Your task to perform on an android device: install app "WhatsApp Messenger" Image 0: 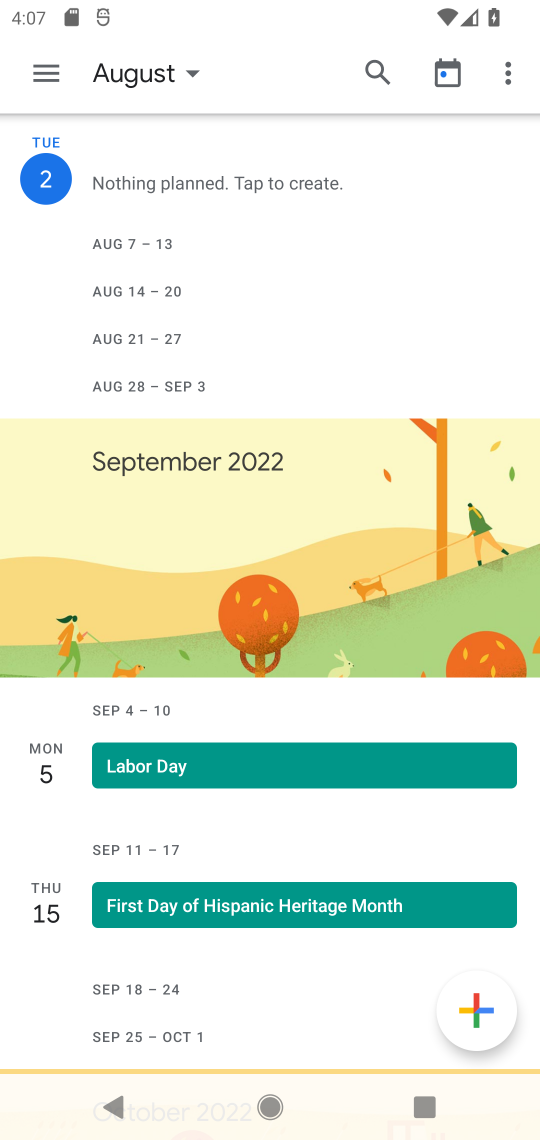
Step 0: press home button
Your task to perform on an android device: install app "WhatsApp Messenger" Image 1: 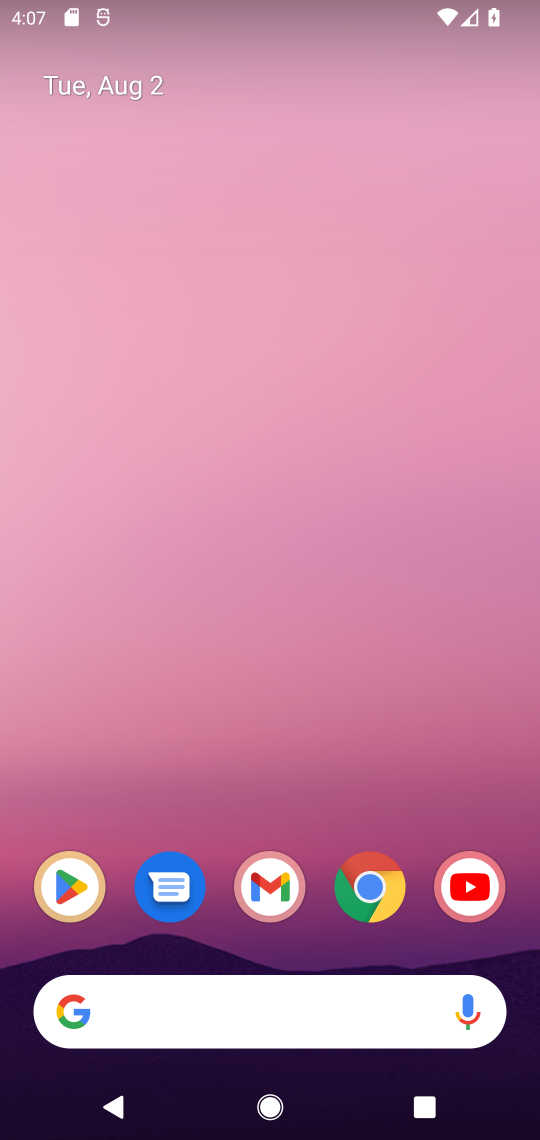
Step 1: click (56, 908)
Your task to perform on an android device: install app "WhatsApp Messenger" Image 2: 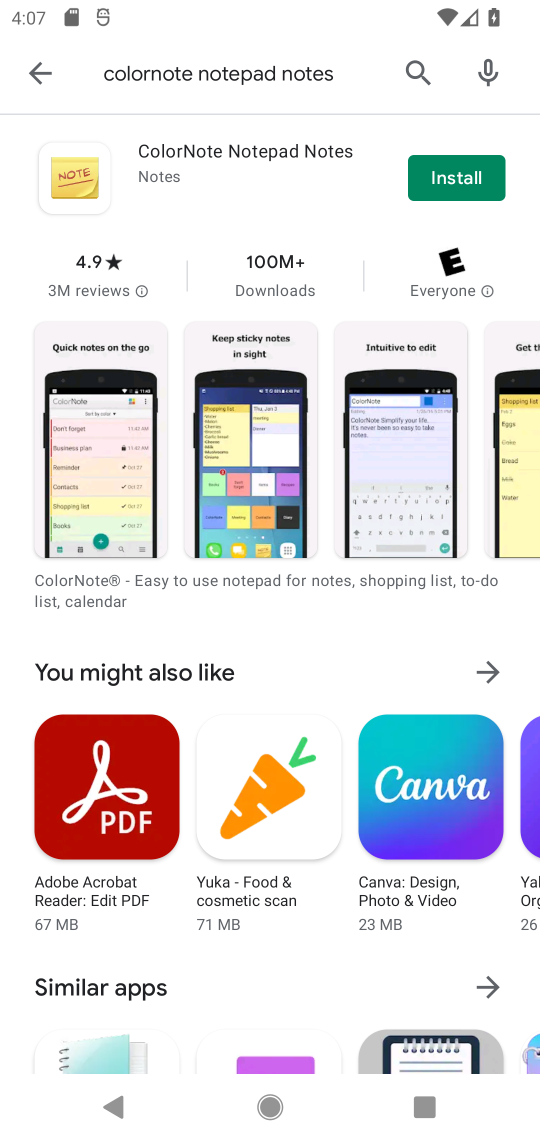
Step 2: click (23, 66)
Your task to perform on an android device: install app "WhatsApp Messenger" Image 3: 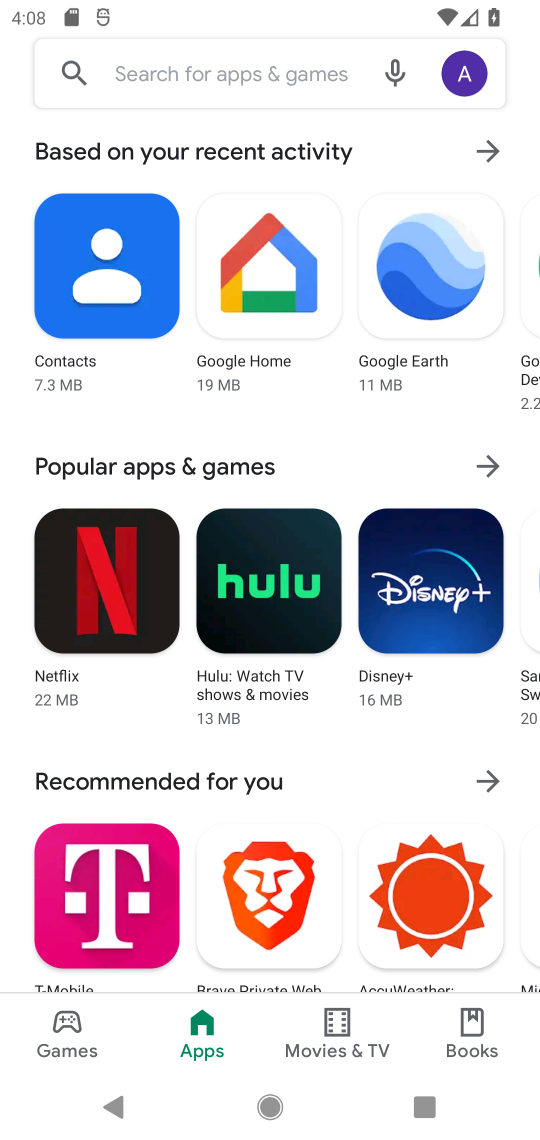
Step 3: click (165, 80)
Your task to perform on an android device: install app "WhatsApp Messenger" Image 4: 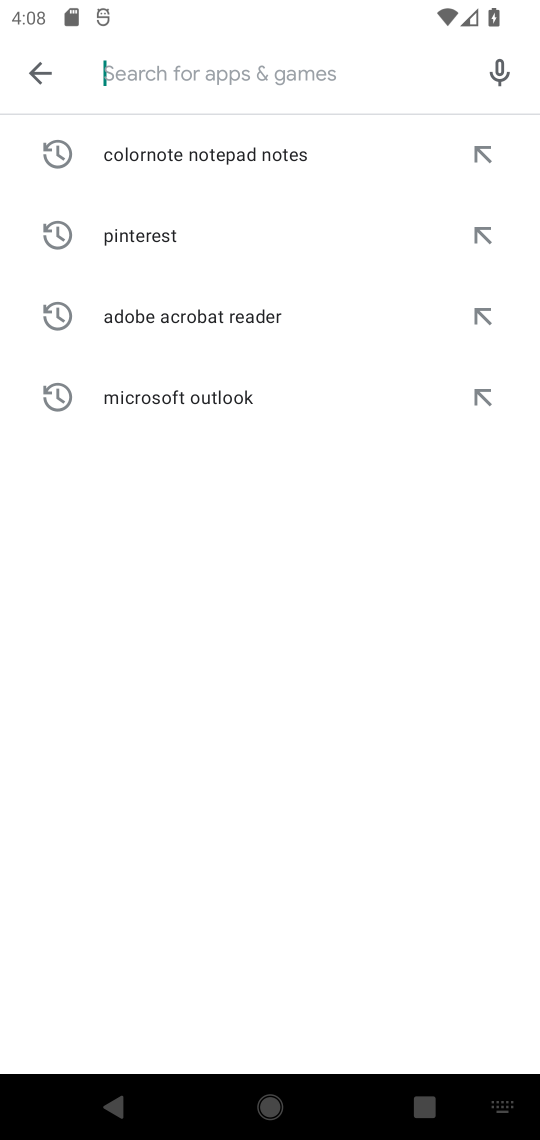
Step 4: type "WhatsApp Messenger""
Your task to perform on an android device: install app "WhatsApp Messenger" Image 5: 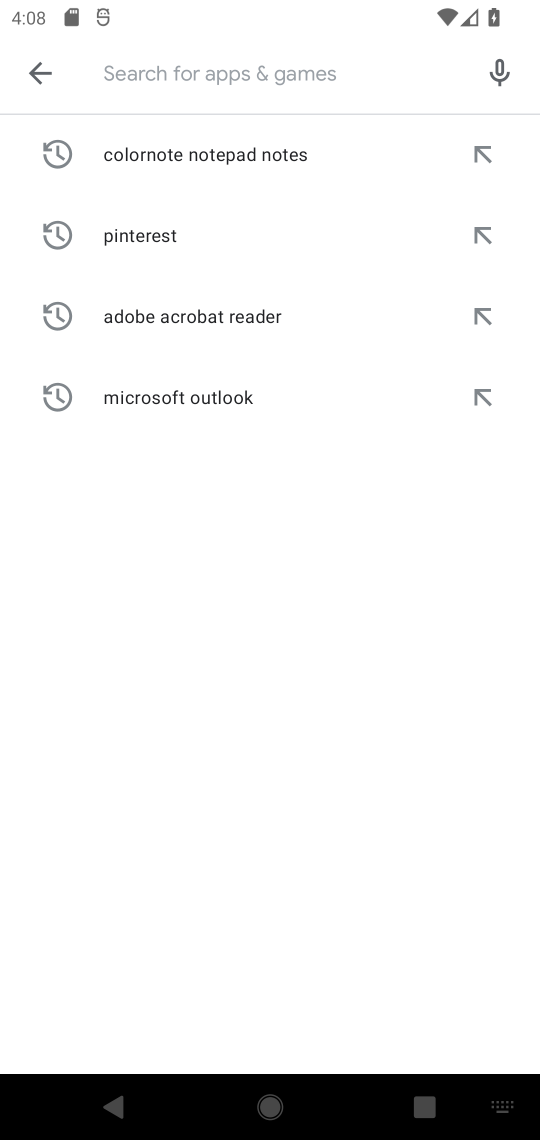
Step 5: type ""
Your task to perform on an android device: install app "WhatsApp Messenger" Image 6: 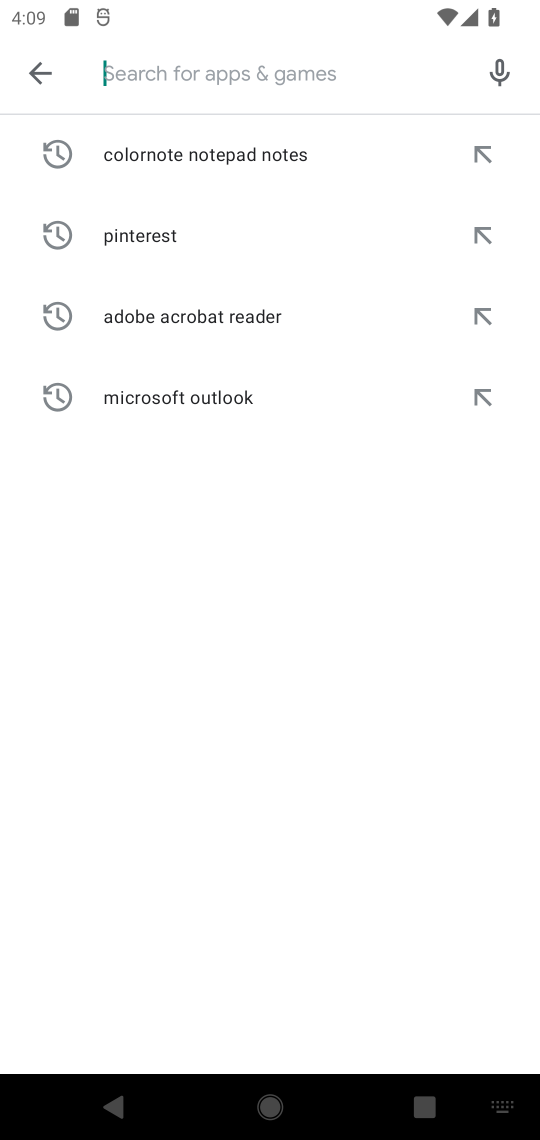
Step 6: type "WhatsApp Messenger"
Your task to perform on an android device: install app "WhatsApp Messenger" Image 7: 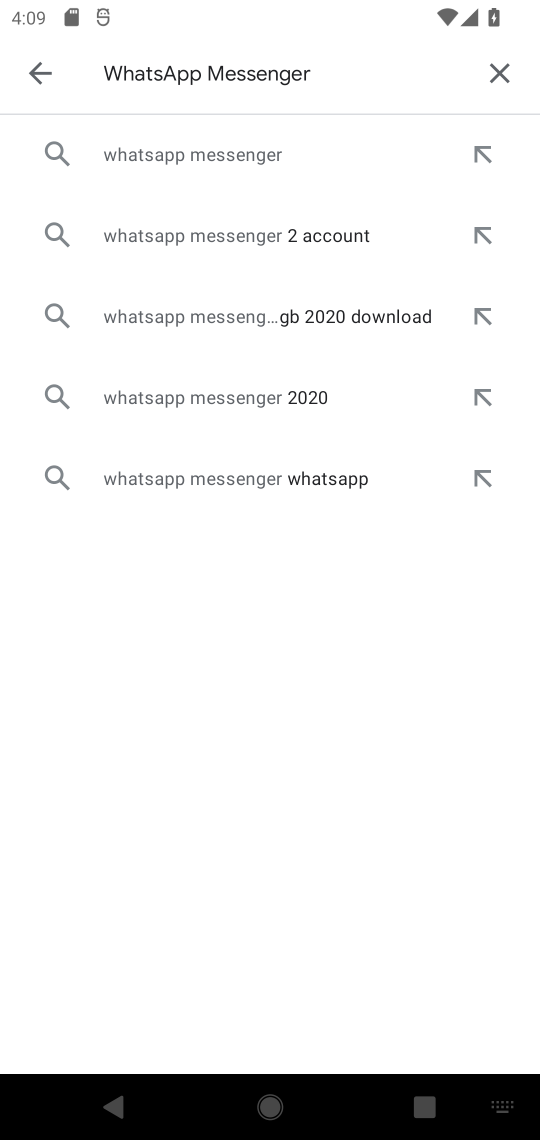
Step 7: click (196, 159)
Your task to perform on an android device: install app "WhatsApp Messenger" Image 8: 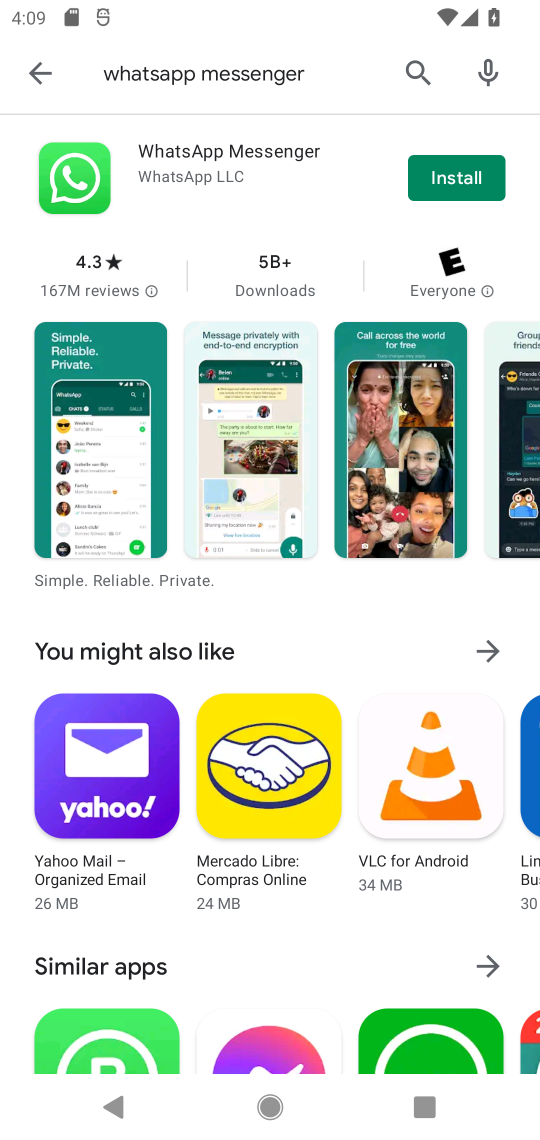
Step 8: click (455, 173)
Your task to perform on an android device: install app "WhatsApp Messenger" Image 9: 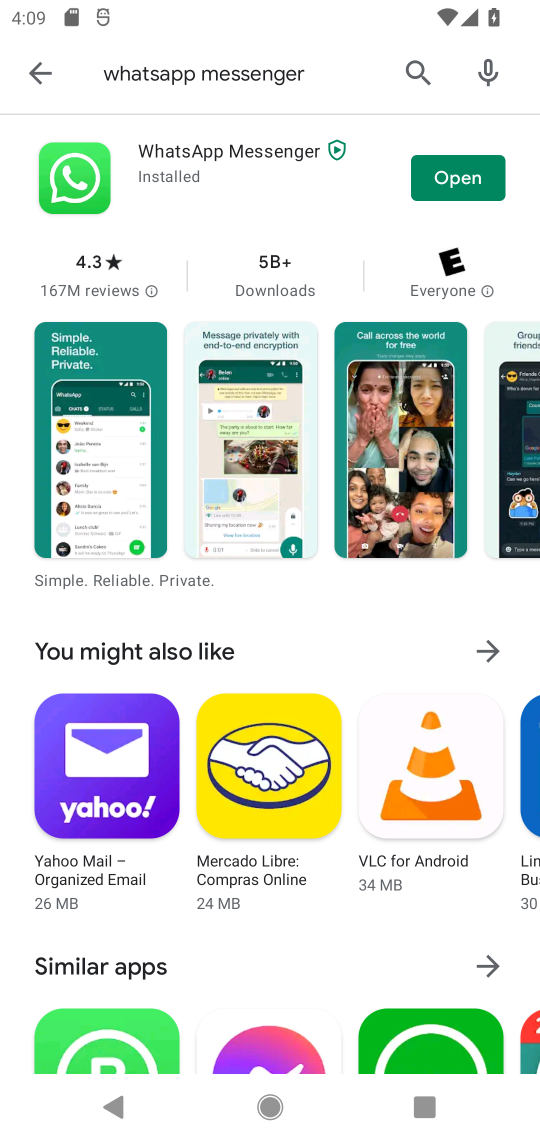
Step 9: task complete